Your task to perform on an android device: Open Chrome and go to the settings page Image 0: 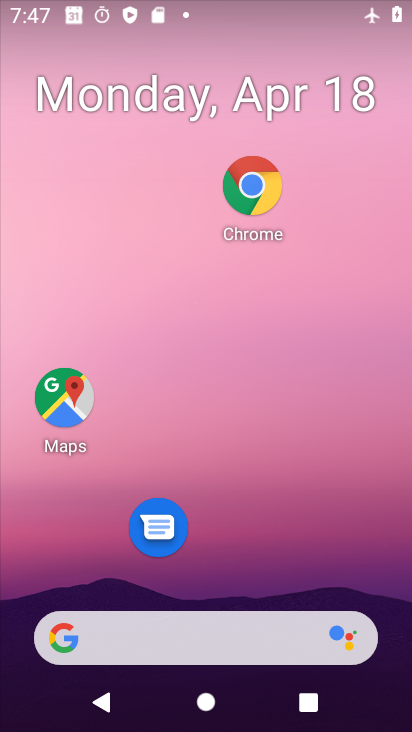
Step 0: drag from (93, 640) to (147, 261)
Your task to perform on an android device: Open Chrome and go to the settings page Image 1: 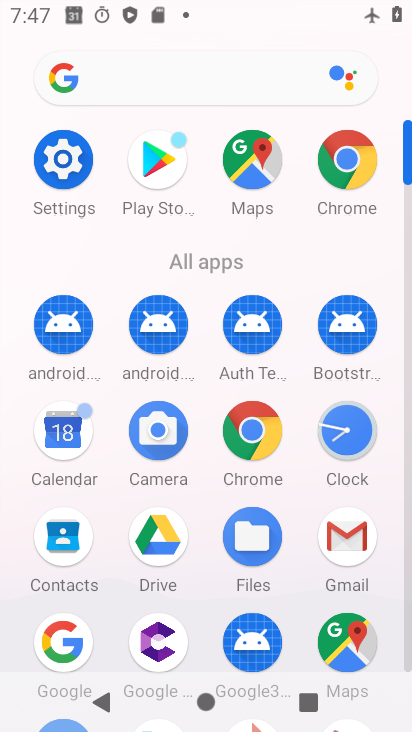
Step 1: click (242, 429)
Your task to perform on an android device: Open Chrome and go to the settings page Image 2: 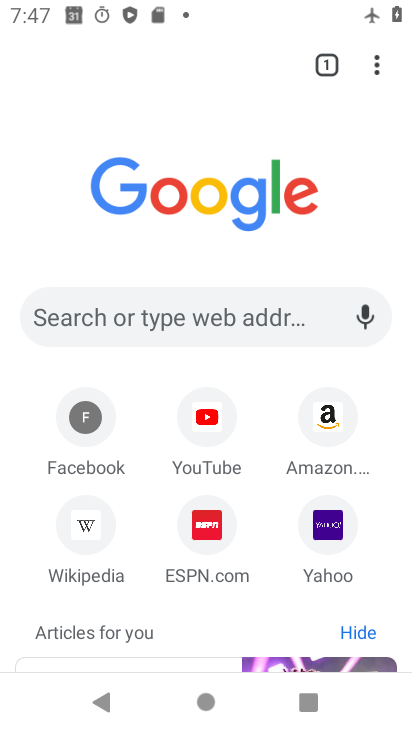
Step 2: click (371, 54)
Your task to perform on an android device: Open Chrome and go to the settings page Image 3: 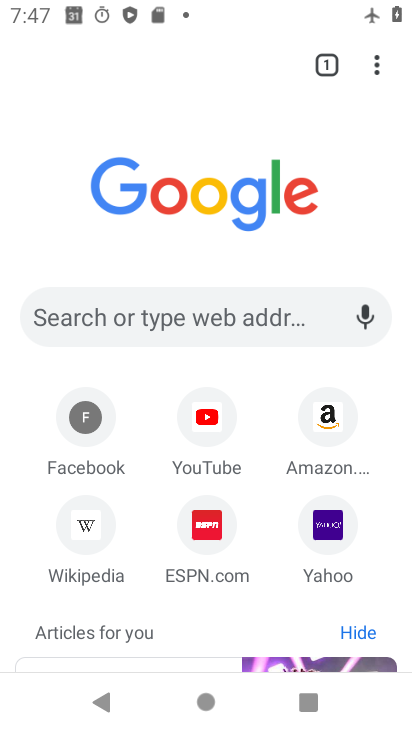
Step 3: click (377, 69)
Your task to perform on an android device: Open Chrome and go to the settings page Image 4: 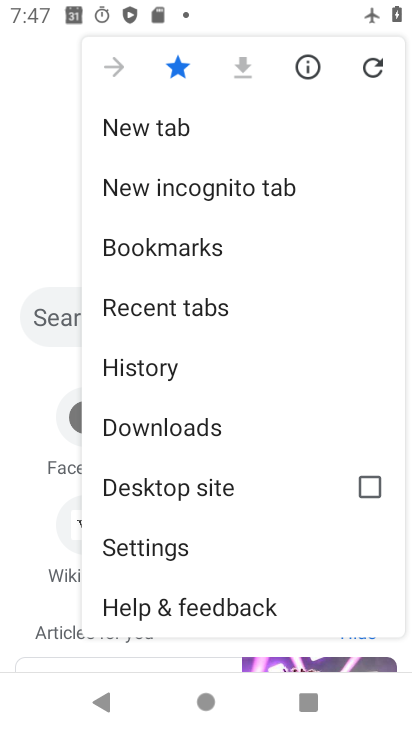
Step 4: click (169, 541)
Your task to perform on an android device: Open Chrome and go to the settings page Image 5: 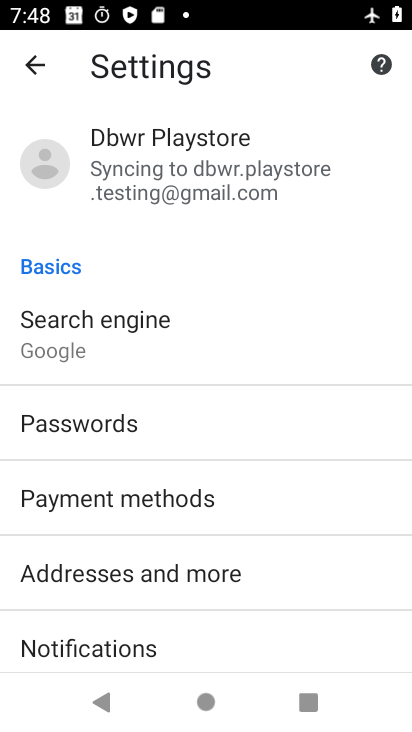
Step 5: task complete